Your task to perform on an android device: turn off notifications settings in the gmail app Image 0: 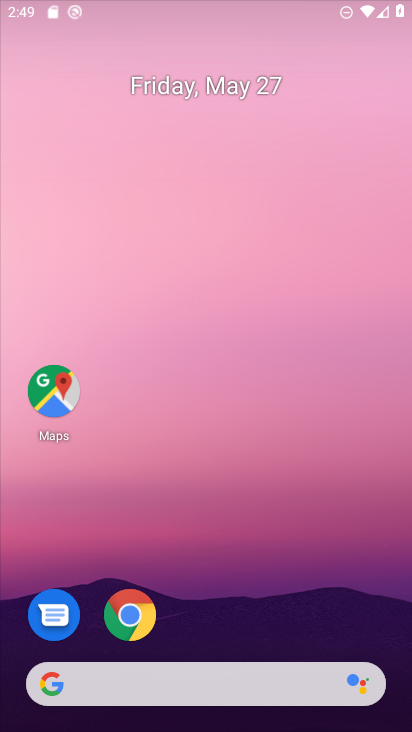
Step 0: drag from (325, 473) to (203, 52)
Your task to perform on an android device: turn off notifications settings in the gmail app Image 1: 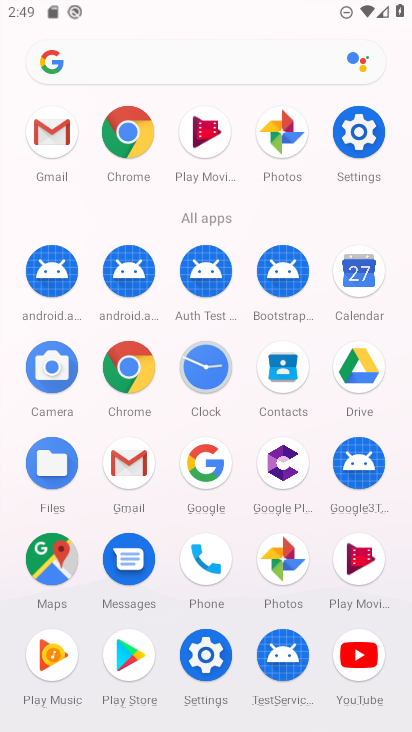
Step 1: click (143, 466)
Your task to perform on an android device: turn off notifications settings in the gmail app Image 2: 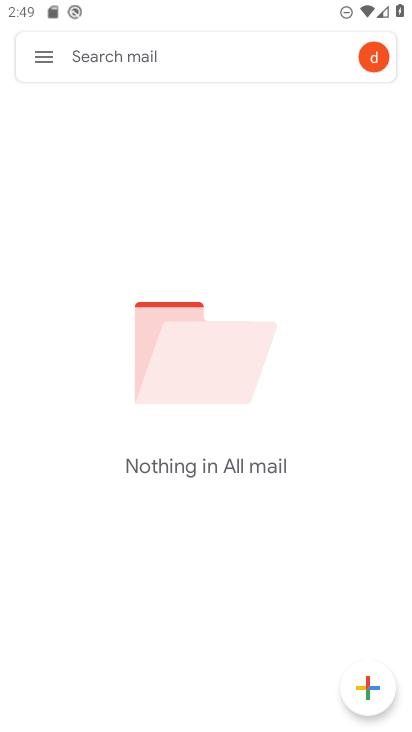
Step 2: click (36, 59)
Your task to perform on an android device: turn off notifications settings in the gmail app Image 3: 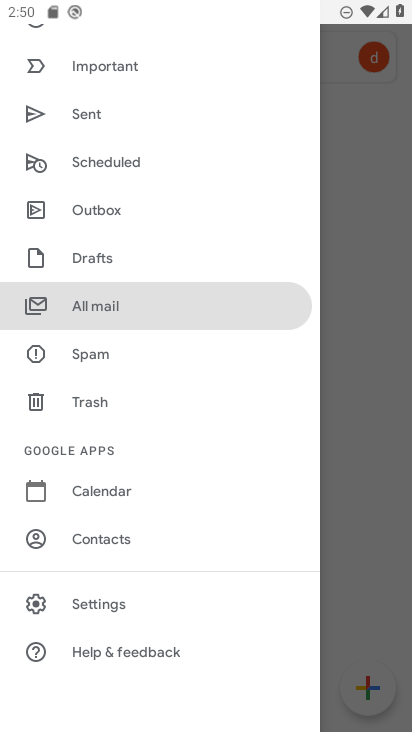
Step 3: click (131, 602)
Your task to perform on an android device: turn off notifications settings in the gmail app Image 4: 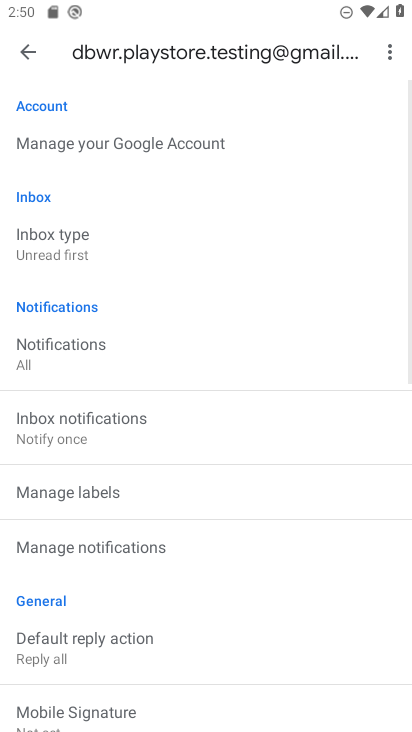
Step 4: click (119, 358)
Your task to perform on an android device: turn off notifications settings in the gmail app Image 5: 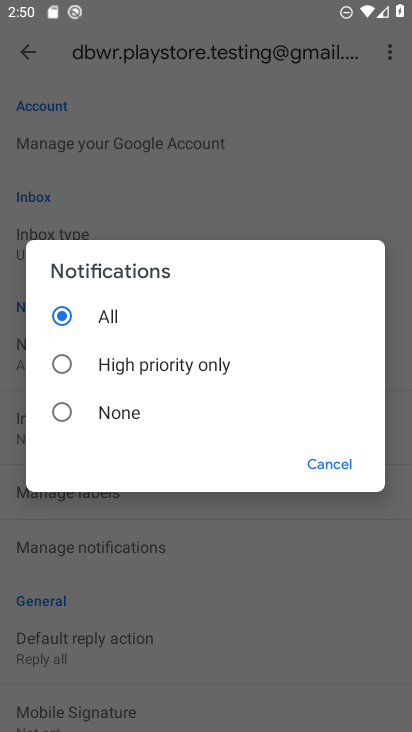
Step 5: click (125, 413)
Your task to perform on an android device: turn off notifications settings in the gmail app Image 6: 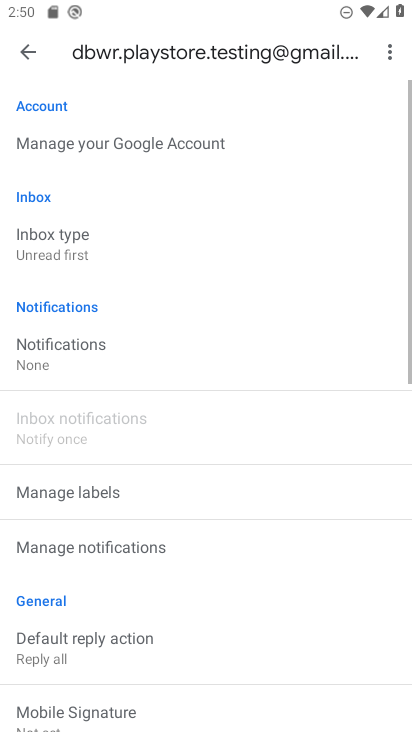
Step 6: task complete